Your task to perform on an android device: turn on data saver in the chrome app Image 0: 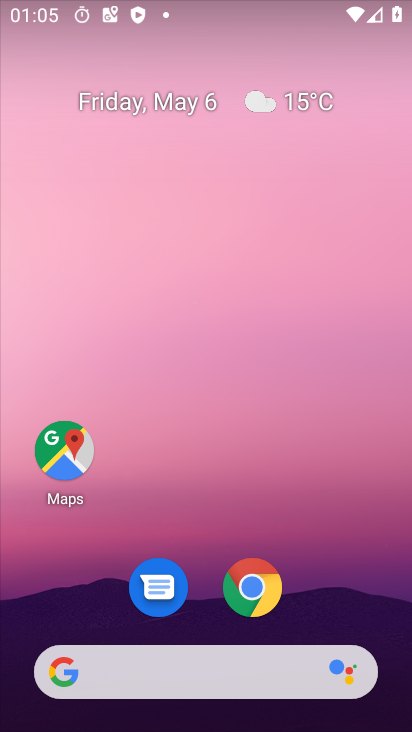
Step 0: click (237, 592)
Your task to perform on an android device: turn on data saver in the chrome app Image 1: 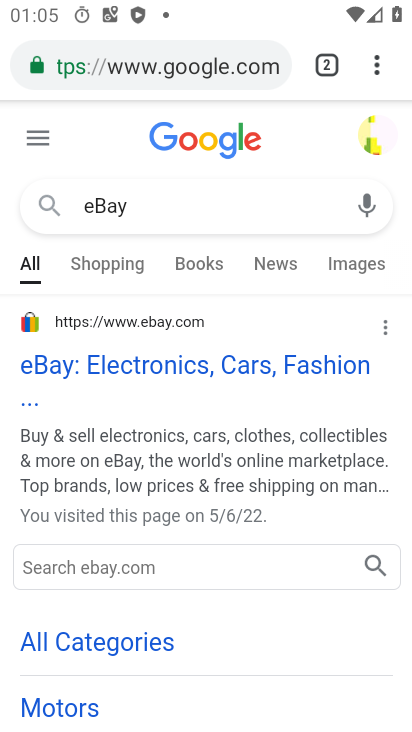
Step 1: click (373, 63)
Your task to perform on an android device: turn on data saver in the chrome app Image 2: 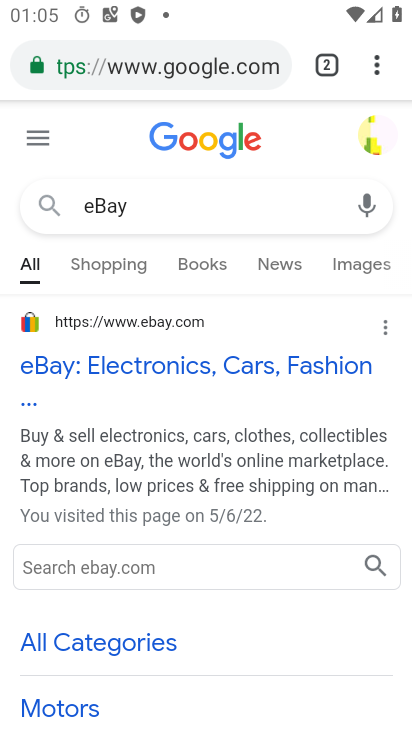
Step 2: click (382, 53)
Your task to perform on an android device: turn on data saver in the chrome app Image 3: 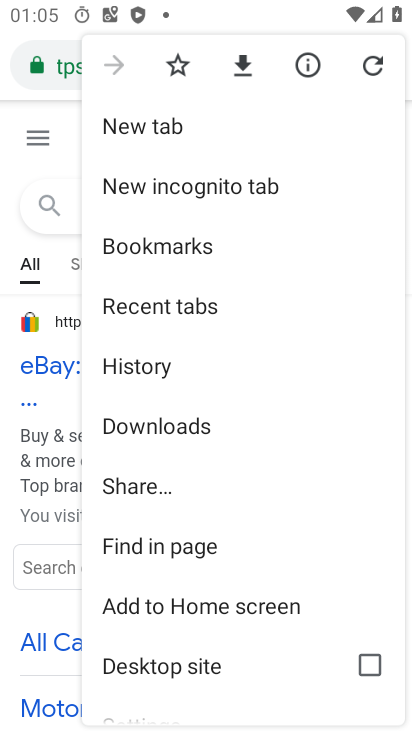
Step 3: drag from (306, 666) to (307, 345)
Your task to perform on an android device: turn on data saver in the chrome app Image 4: 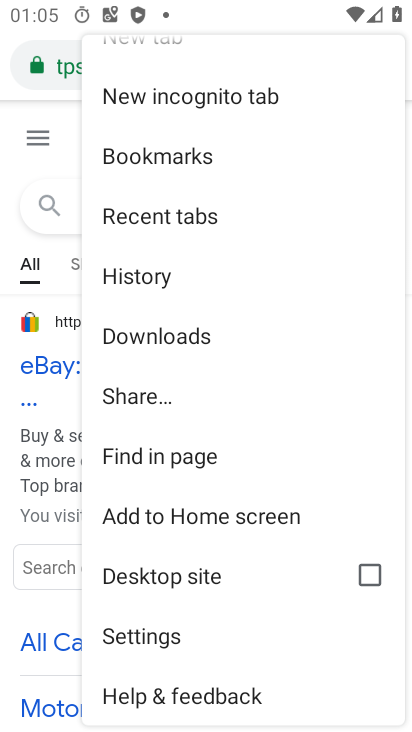
Step 4: drag from (264, 626) to (253, 504)
Your task to perform on an android device: turn on data saver in the chrome app Image 5: 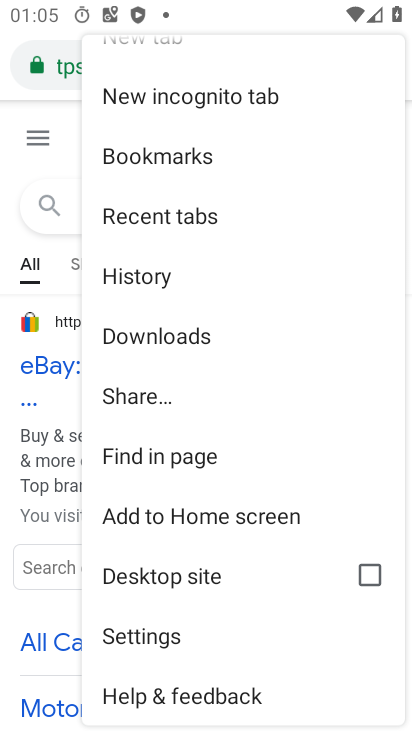
Step 5: click (145, 632)
Your task to perform on an android device: turn on data saver in the chrome app Image 6: 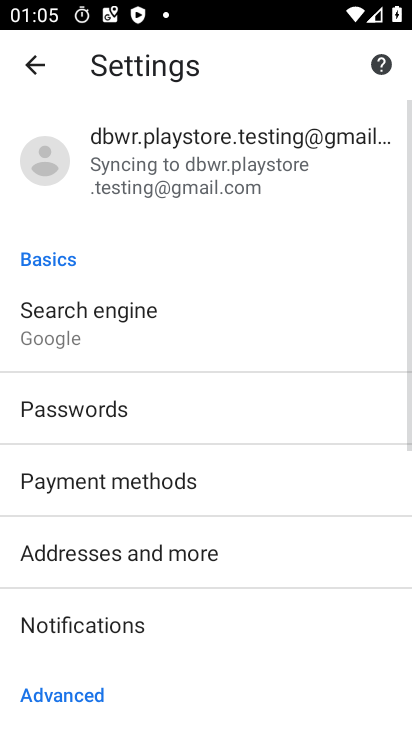
Step 6: drag from (268, 602) to (243, 390)
Your task to perform on an android device: turn on data saver in the chrome app Image 7: 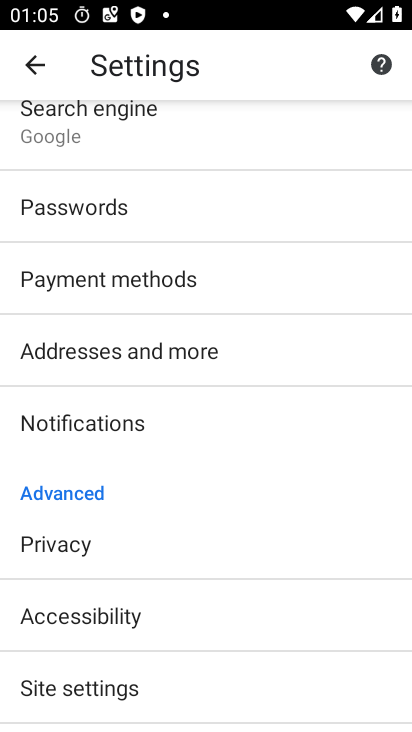
Step 7: drag from (276, 676) to (262, 340)
Your task to perform on an android device: turn on data saver in the chrome app Image 8: 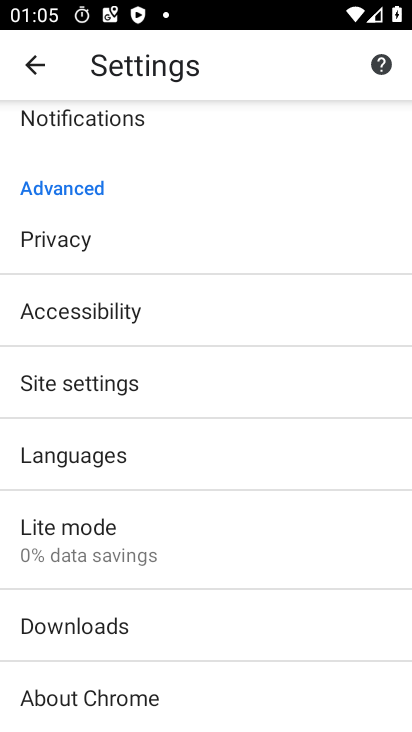
Step 8: click (61, 530)
Your task to perform on an android device: turn on data saver in the chrome app Image 9: 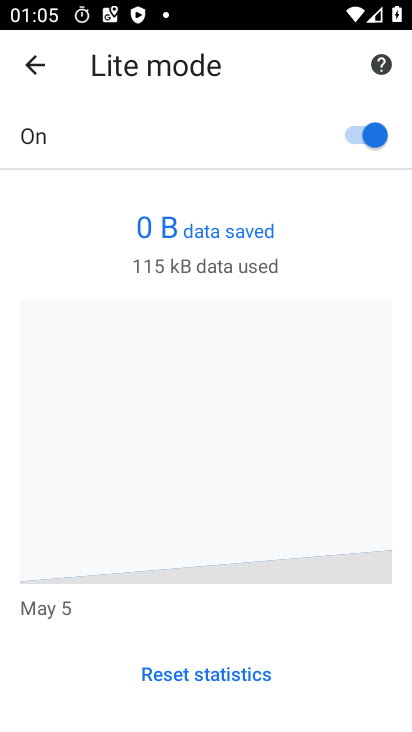
Step 9: task complete